Your task to perform on an android device: turn on sleep mode Image 0: 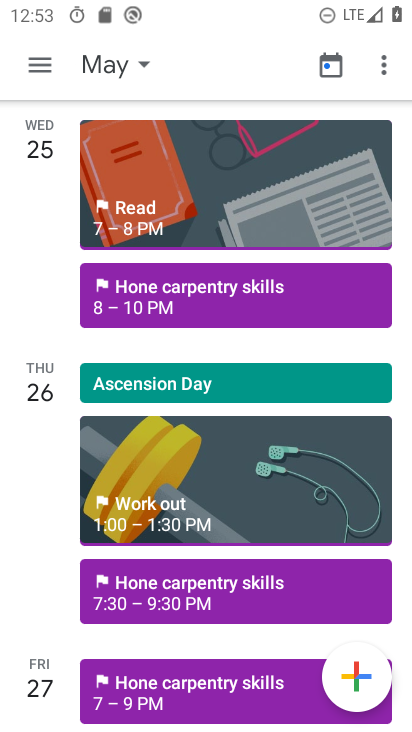
Step 0: drag from (227, 274) to (244, 580)
Your task to perform on an android device: turn on sleep mode Image 1: 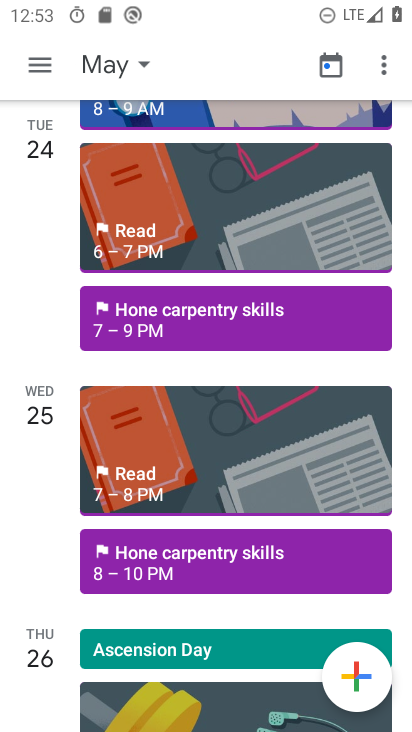
Step 1: click (141, 73)
Your task to perform on an android device: turn on sleep mode Image 2: 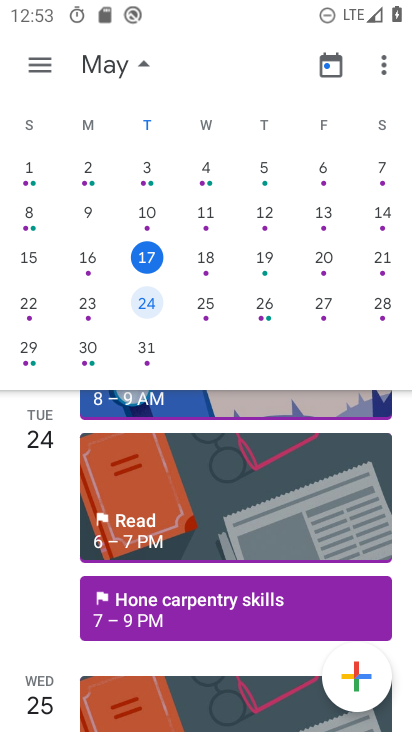
Step 2: press home button
Your task to perform on an android device: turn on sleep mode Image 3: 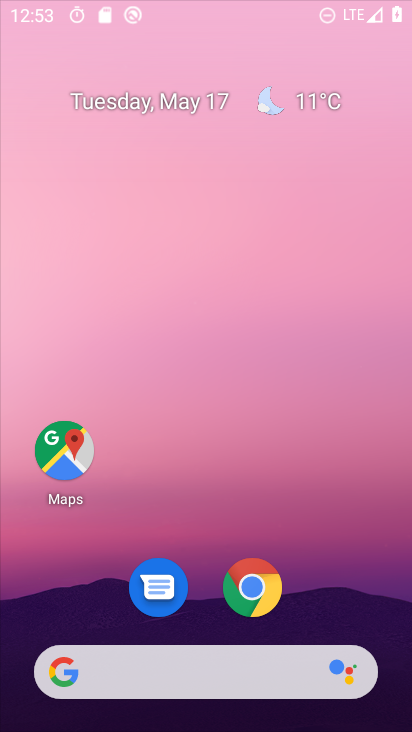
Step 3: drag from (206, 644) to (227, 100)
Your task to perform on an android device: turn on sleep mode Image 4: 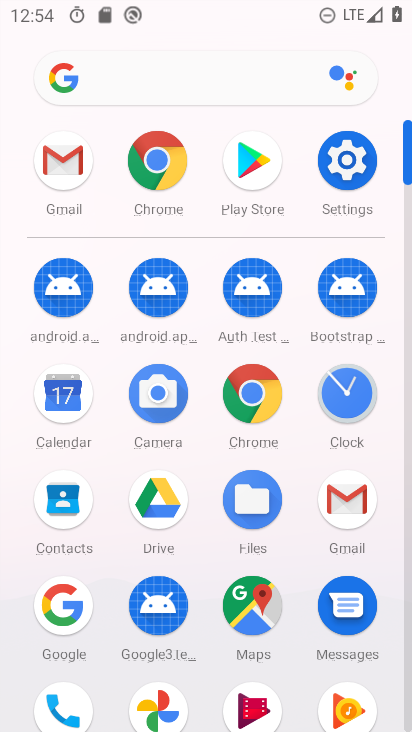
Step 4: click (348, 160)
Your task to perform on an android device: turn on sleep mode Image 5: 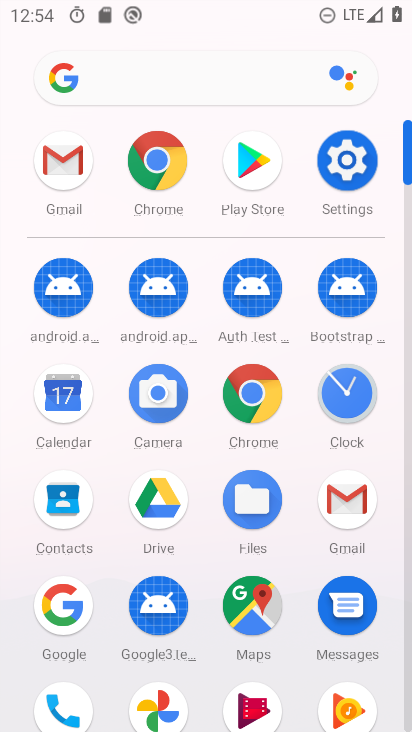
Step 5: click (348, 160)
Your task to perform on an android device: turn on sleep mode Image 6: 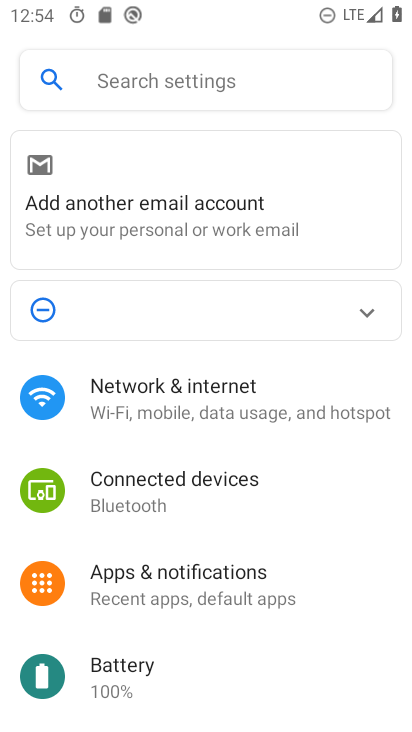
Step 6: drag from (200, 618) to (313, 105)
Your task to perform on an android device: turn on sleep mode Image 7: 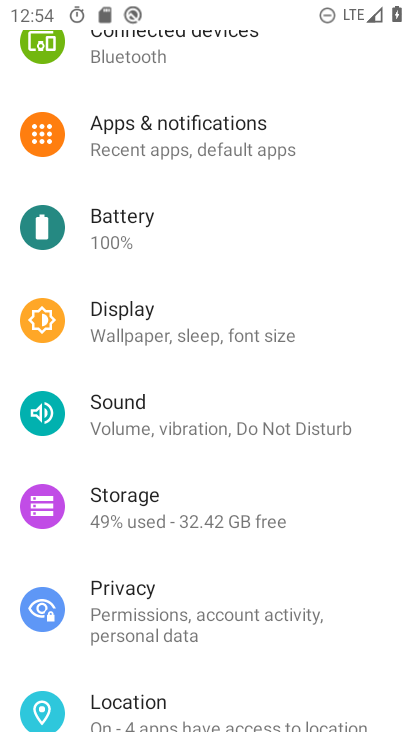
Step 7: click (170, 322)
Your task to perform on an android device: turn on sleep mode Image 8: 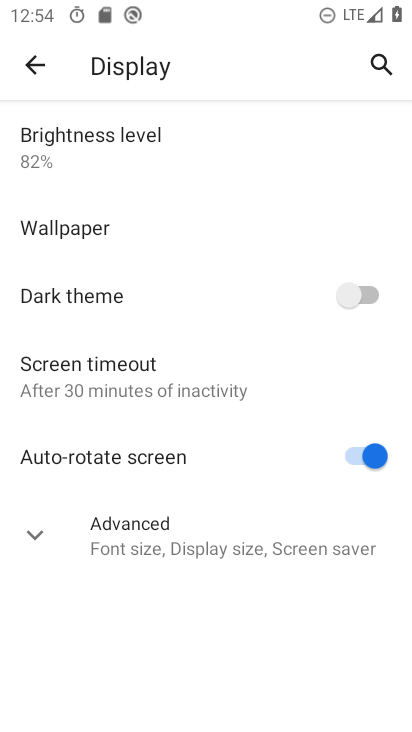
Step 8: click (158, 369)
Your task to perform on an android device: turn on sleep mode Image 9: 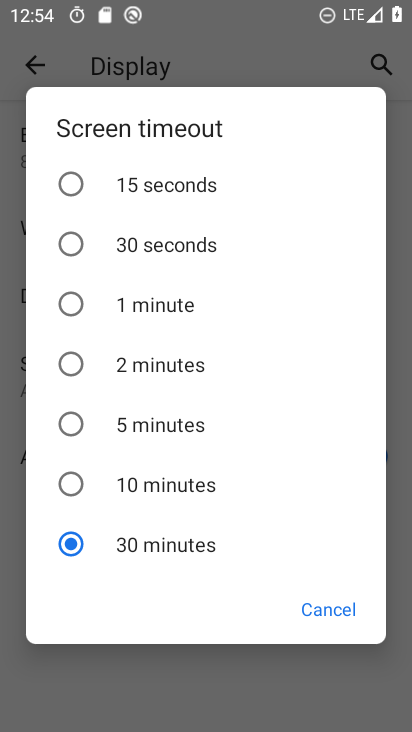
Step 9: task complete